Your task to perform on an android device: turn notification dots off Image 0: 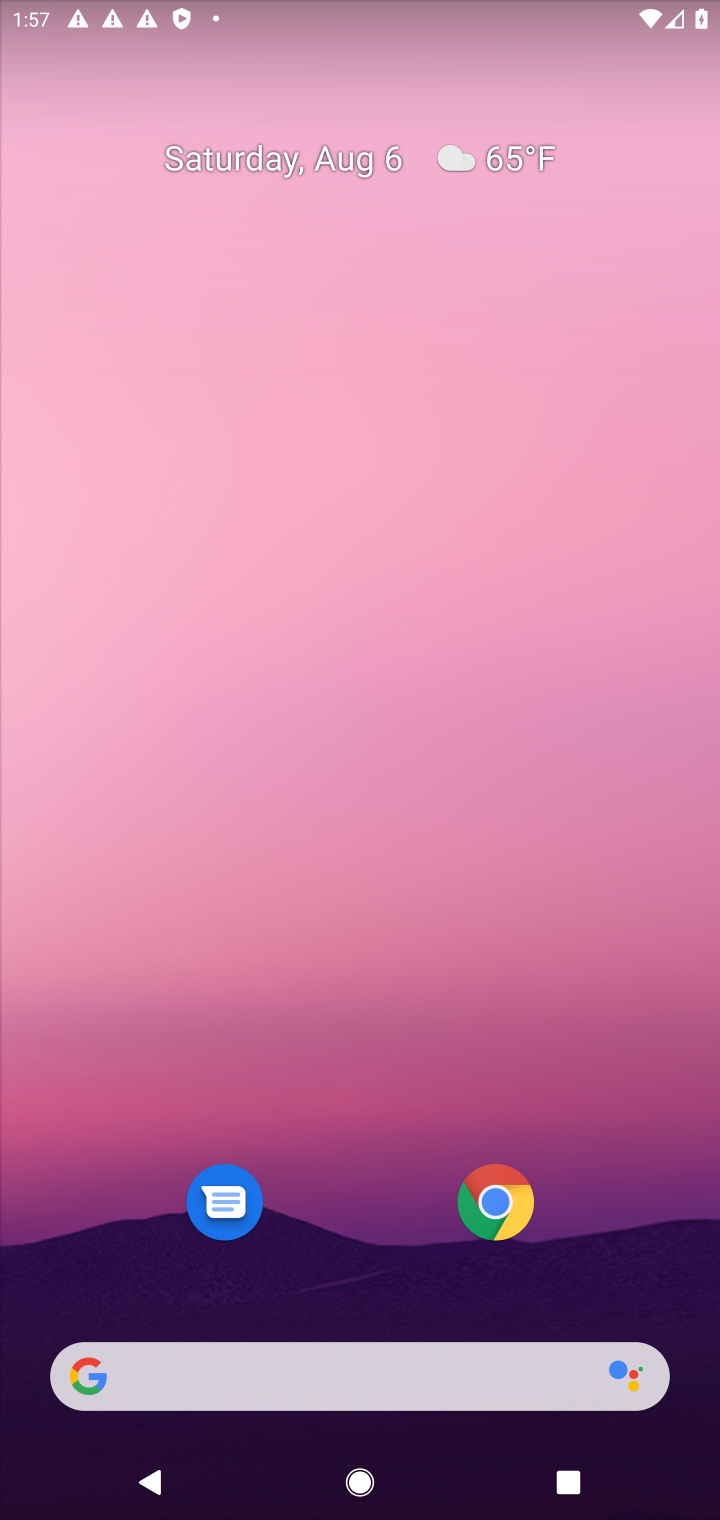
Step 0: drag from (327, 1355) to (327, 328)
Your task to perform on an android device: turn notification dots off Image 1: 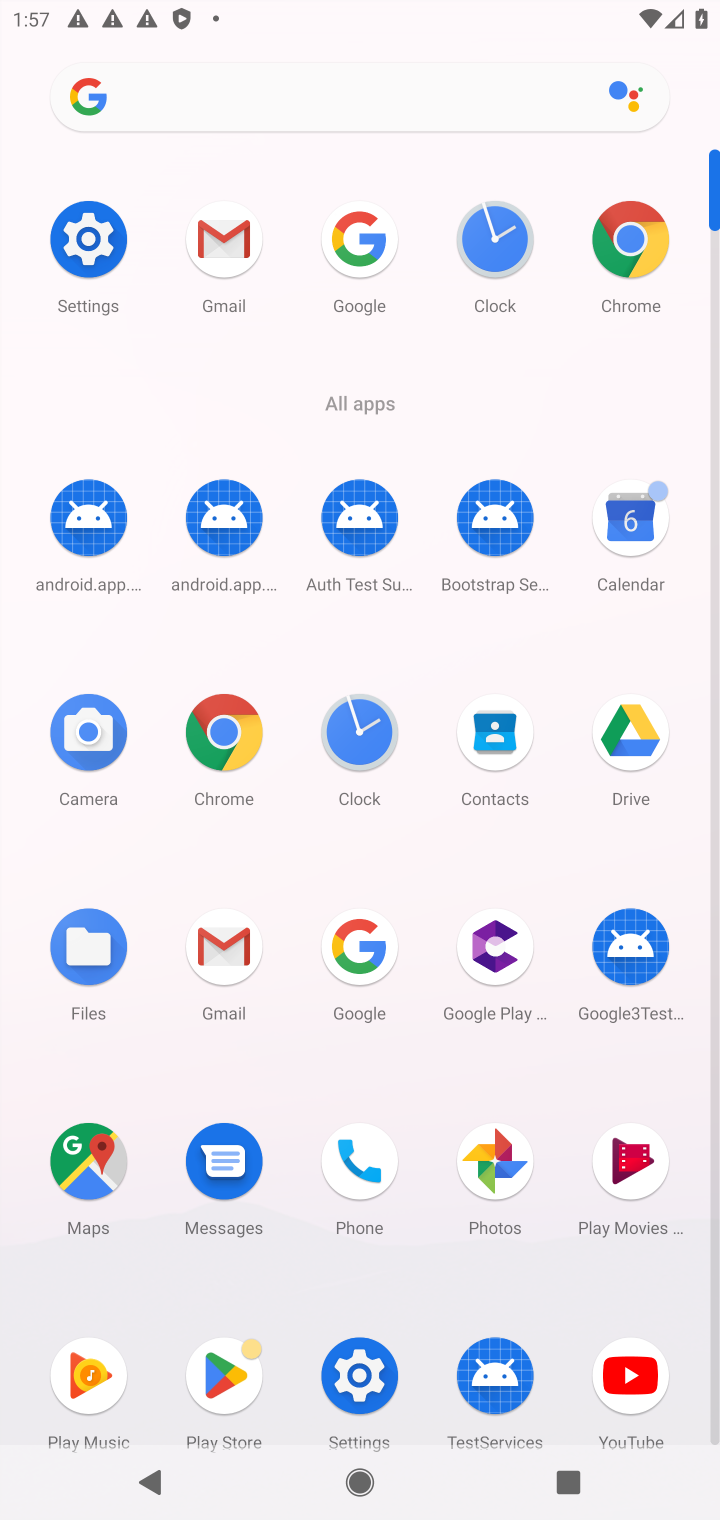
Step 1: click (358, 1386)
Your task to perform on an android device: turn notification dots off Image 2: 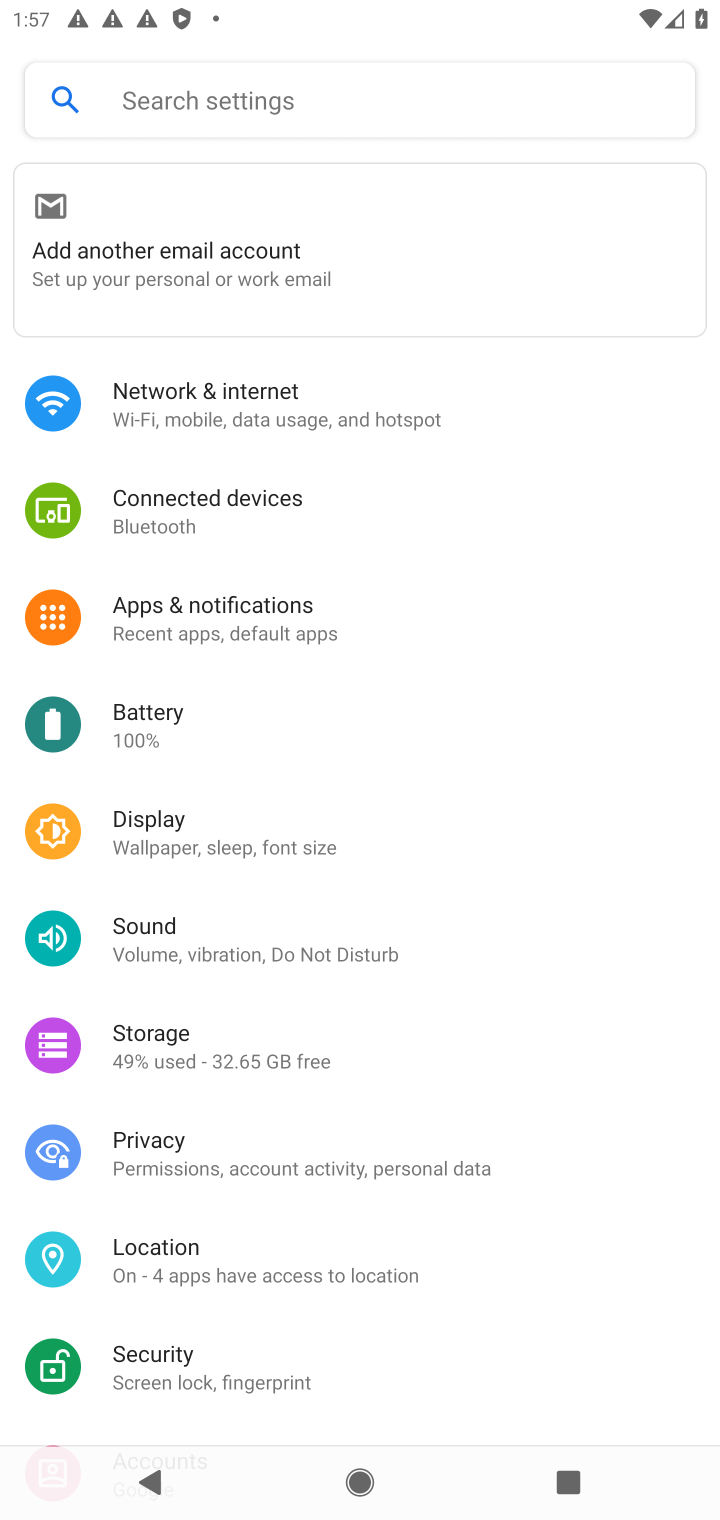
Step 2: click (189, 621)
Your task to perform on an android device: turn notification dots off Image 3: 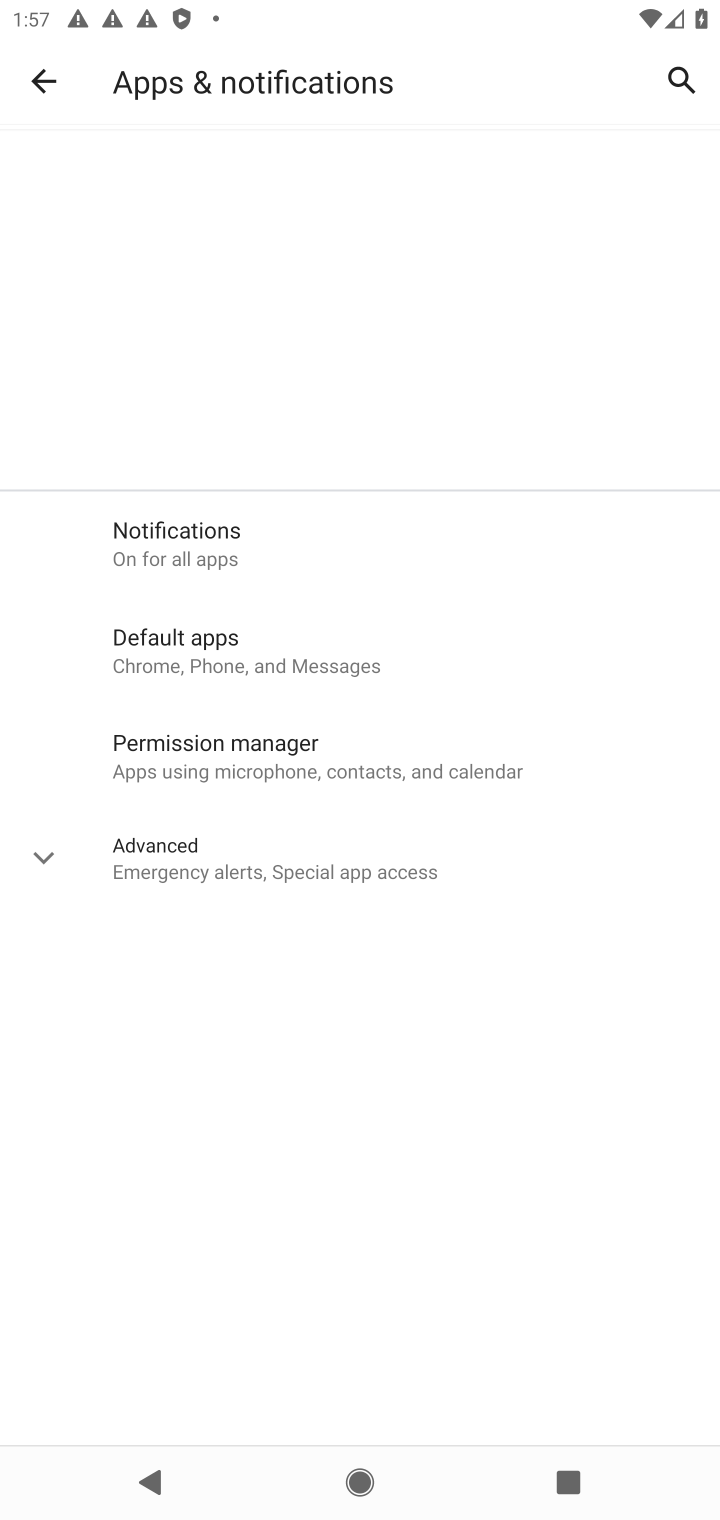
Step 3: click (197, 818)
Your task to perform on an android device: turn notification dots off Image 4: 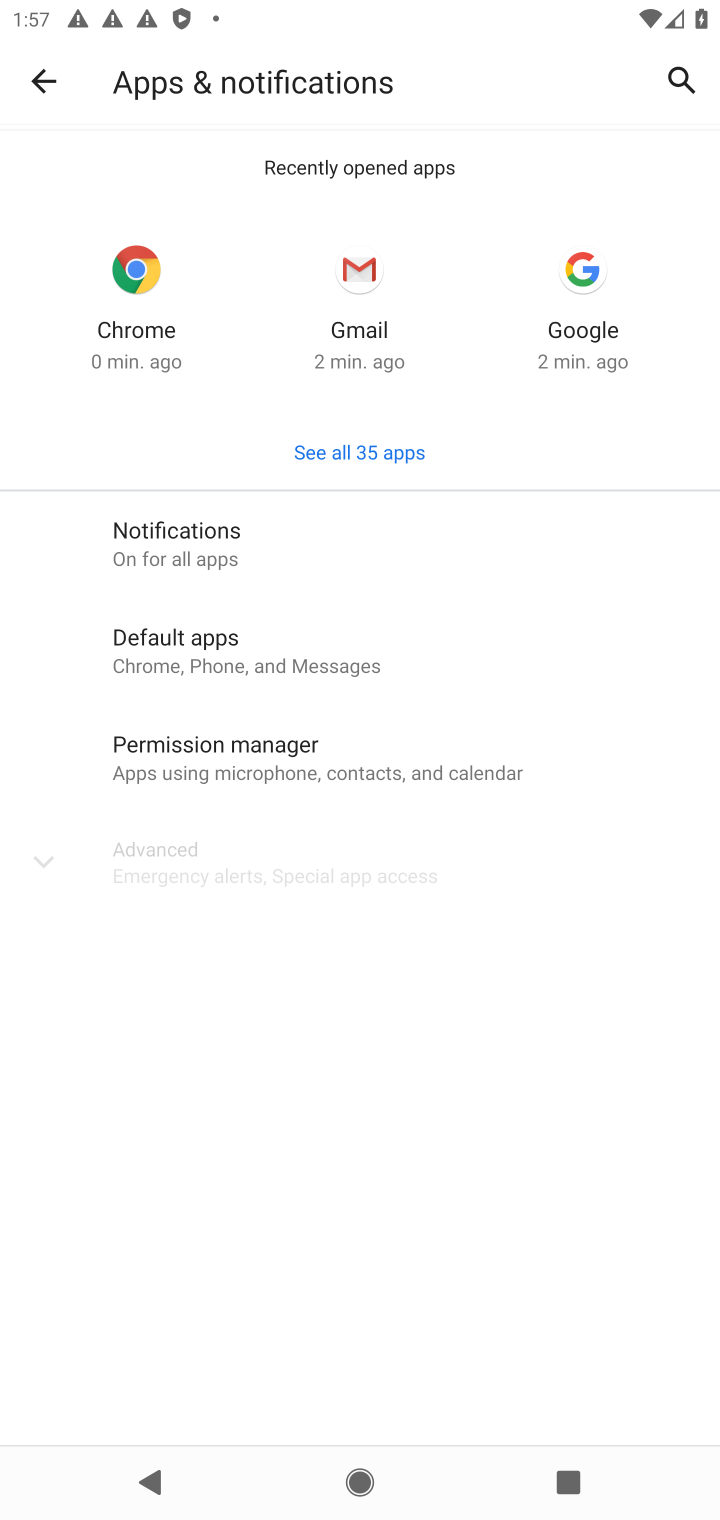
Step 4: click (174, 533)
Your task to perform on an android device: turn notification dots off Image 5: 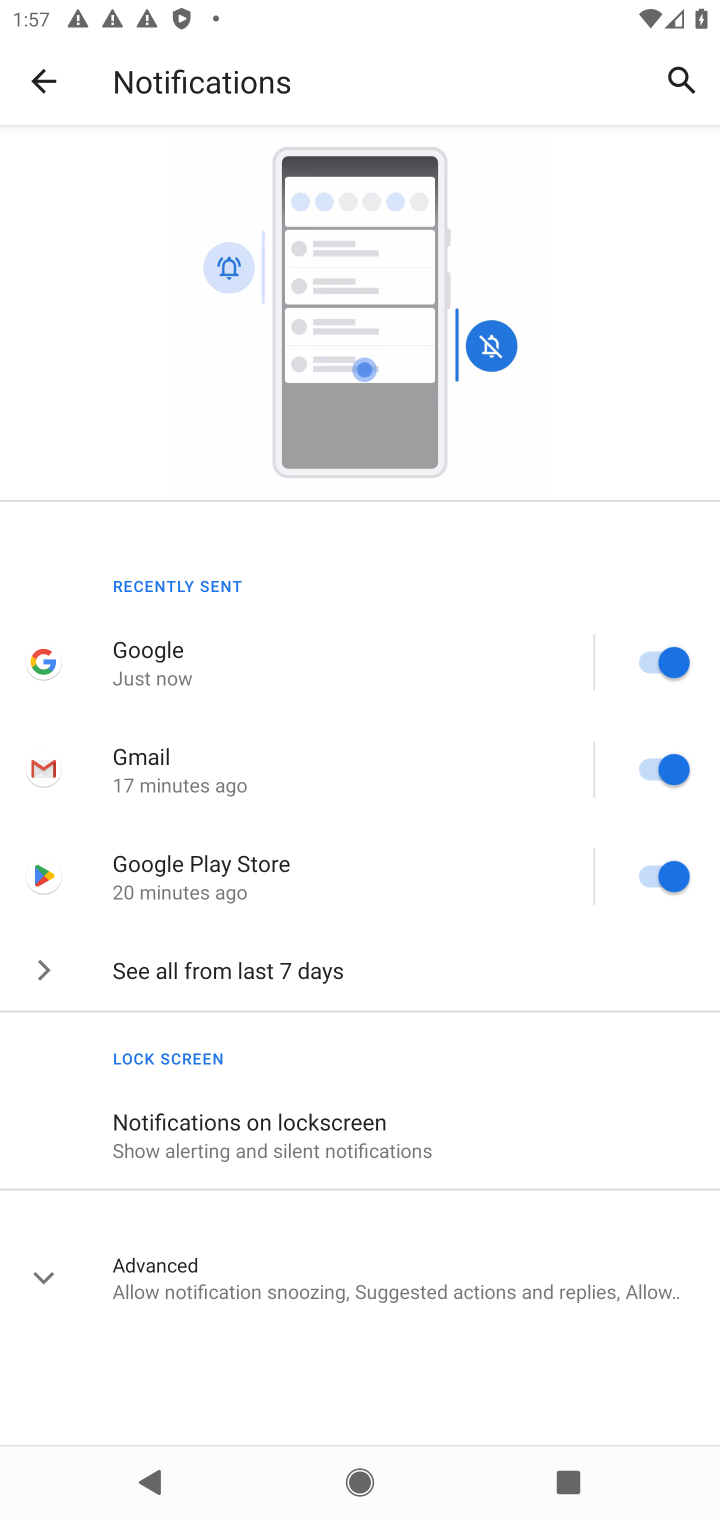
Step 5: click (211, 1292)
Your task to perform on an android device: turn notification dots off Image 6: 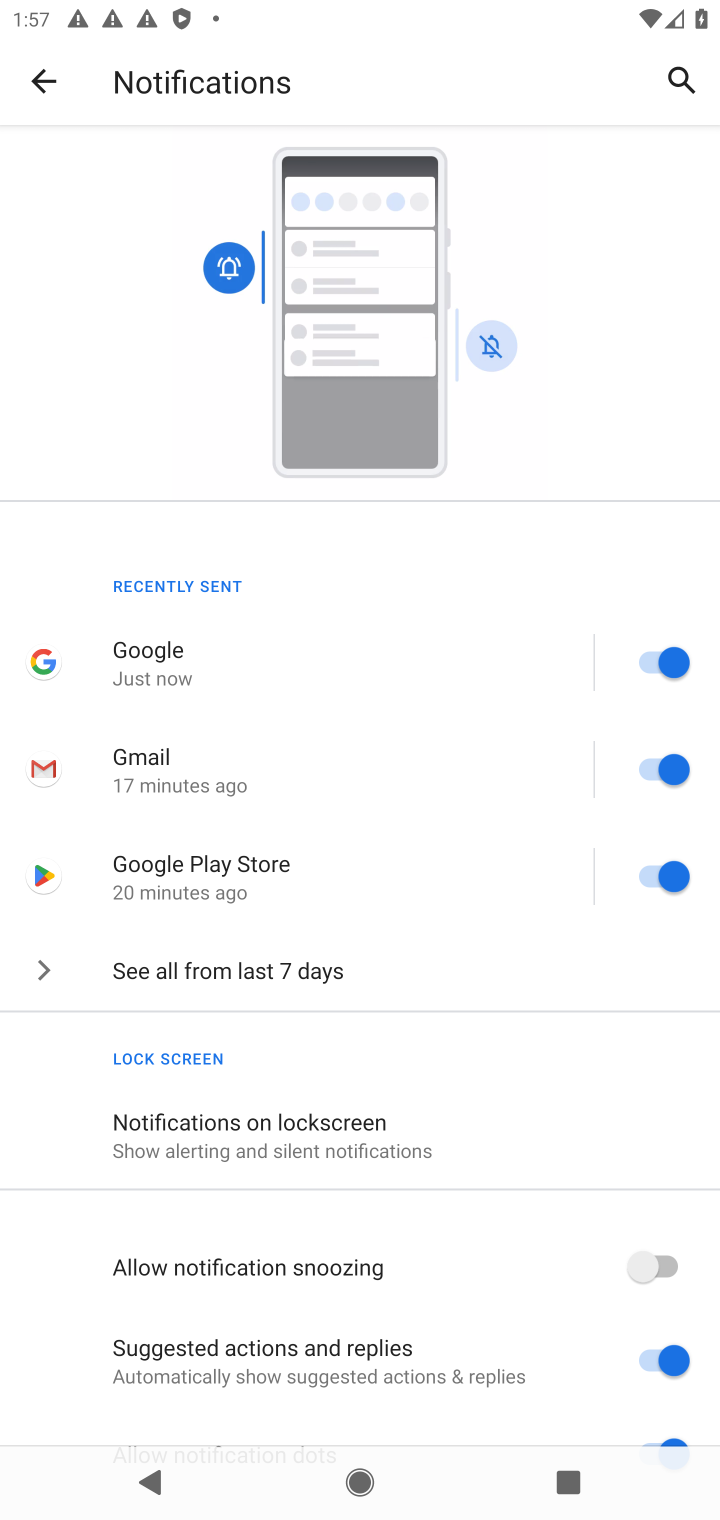
Step 6: drag from (192, 736) to (192, 668)
Your task to perform on an android device: turn notification dots off Image 7: 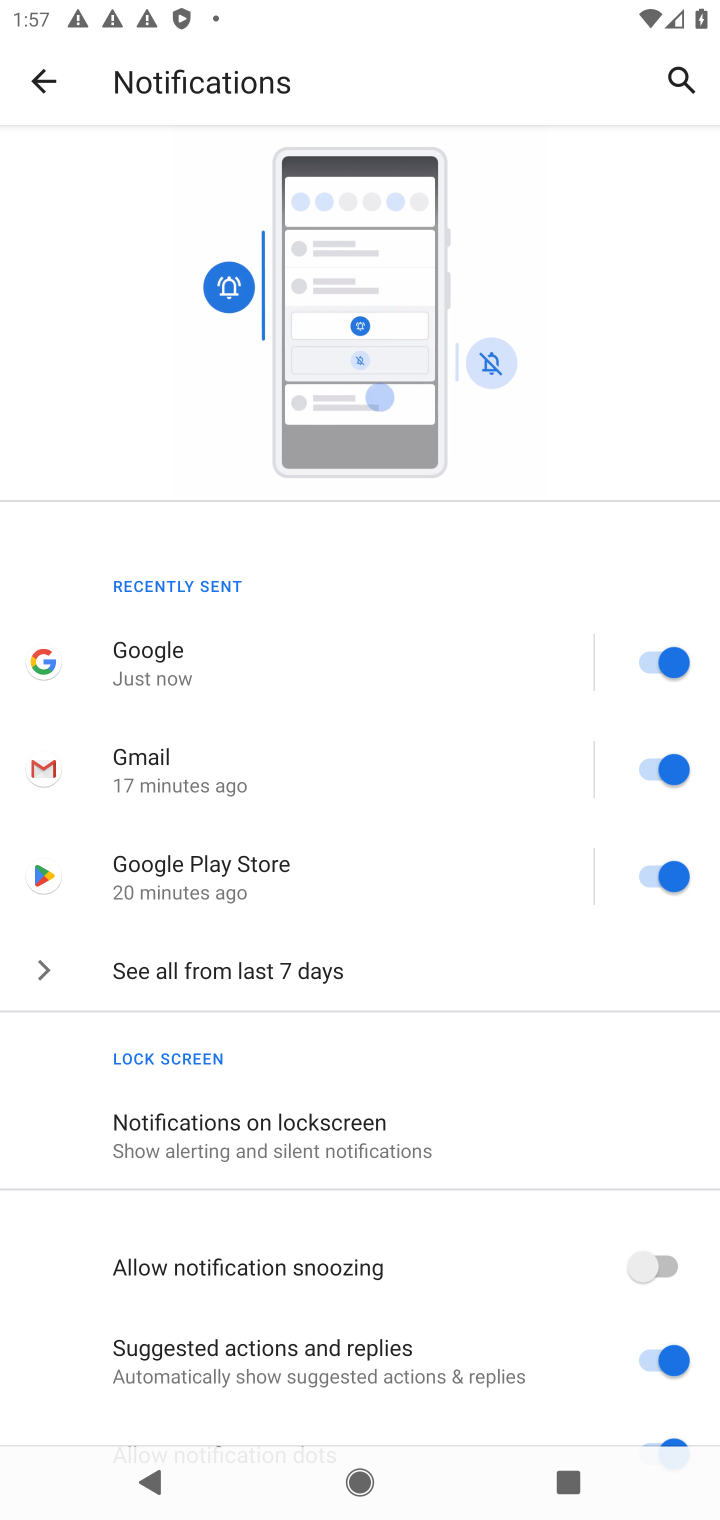
Step 7: drag from (357, 1117) to (357, 632)
Your task to perform on an android device: turn notification dots off Image 8: 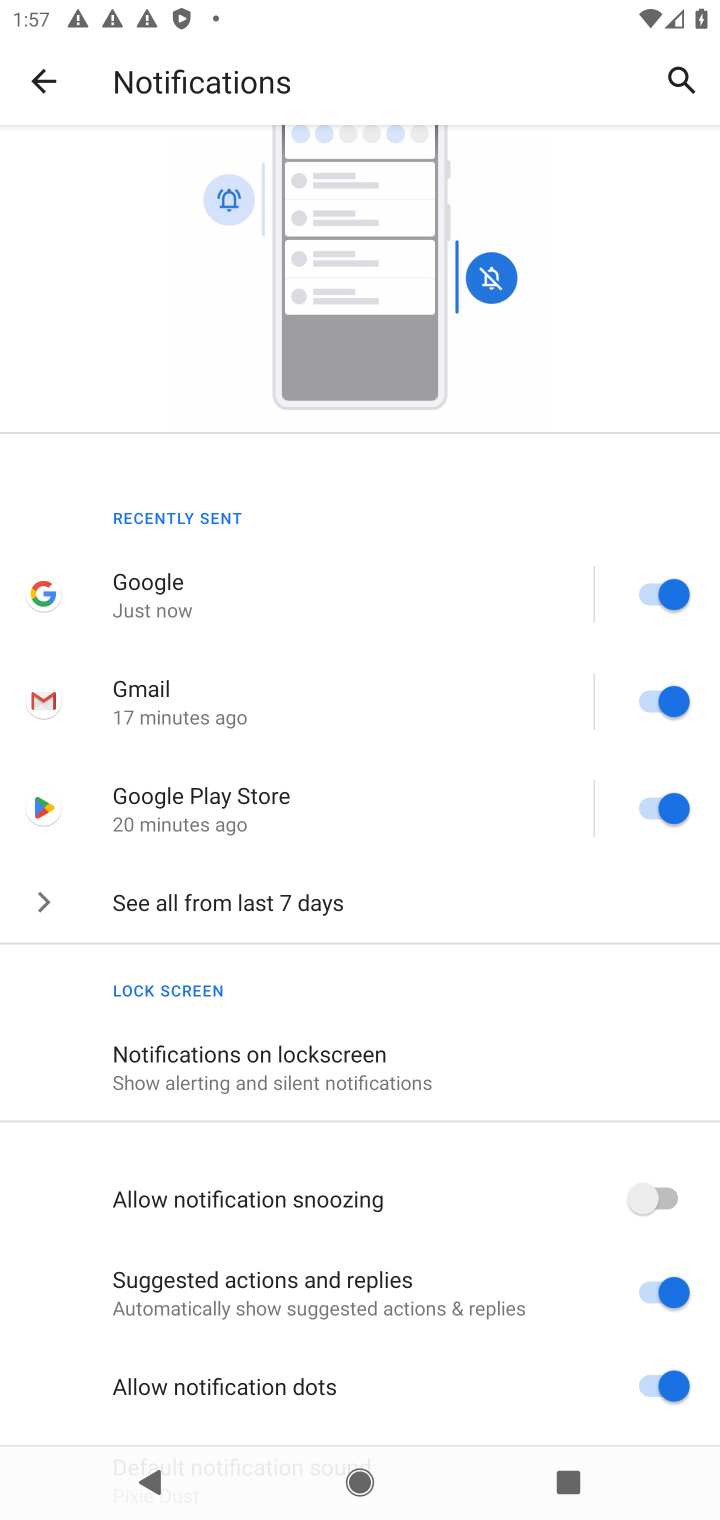
Step 8: click (655, 1376)
Your task to perform on an android device: turn notification dots off Image 9: 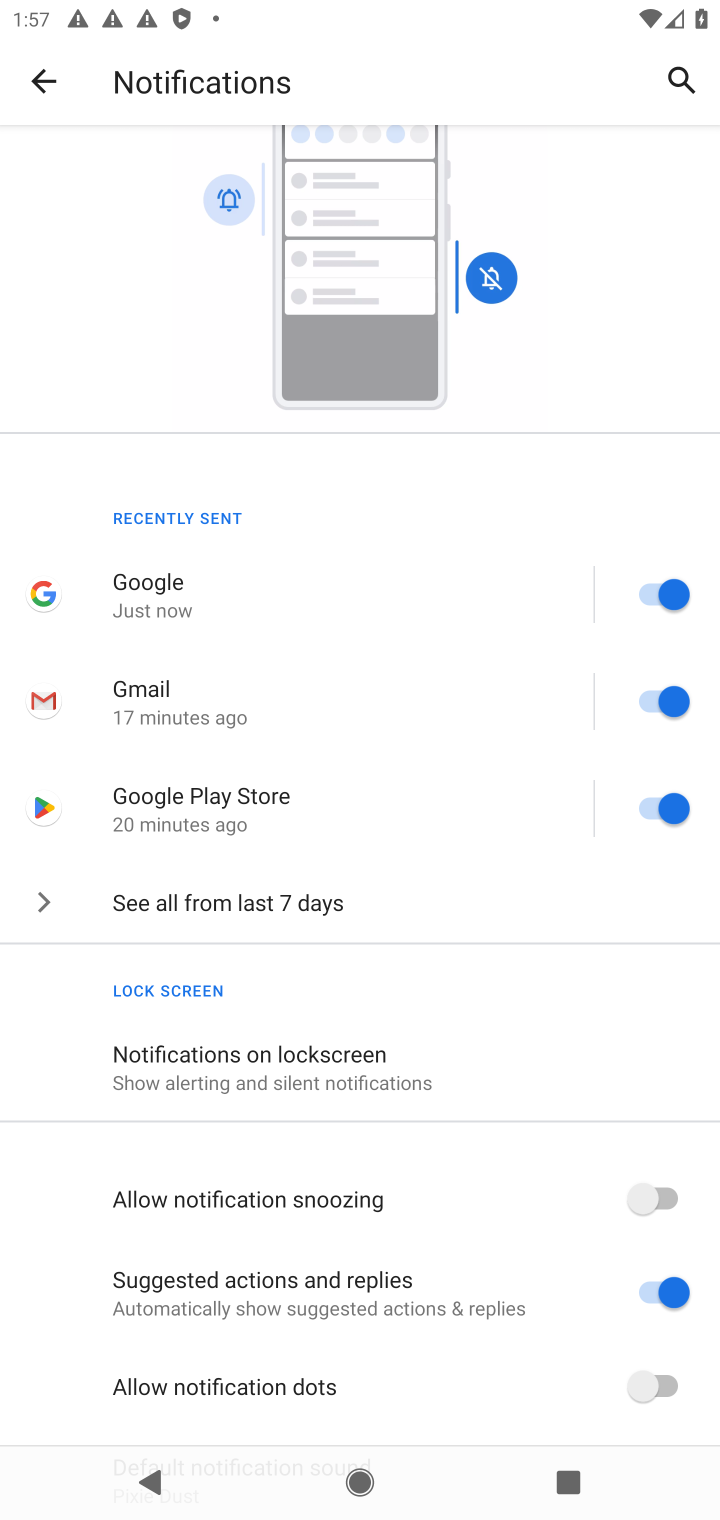
Step 9: task complete